Your task to perform on an android device: When is my next meeting? Image 0: 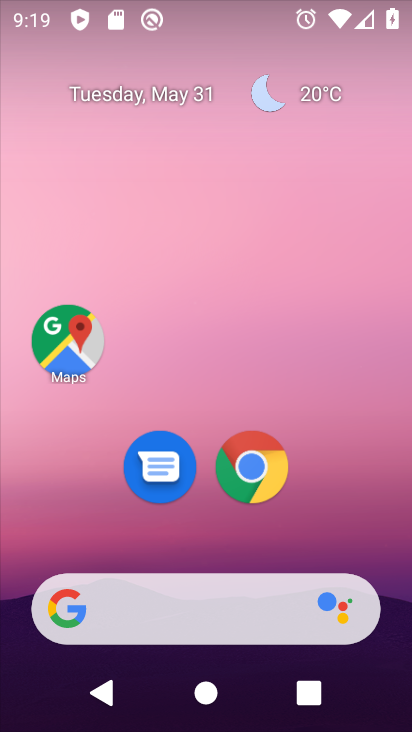
Step 0: drag from (225, 539) to (286, 16)
Your task to perform on an android device: When is my next meeting? Image 1: 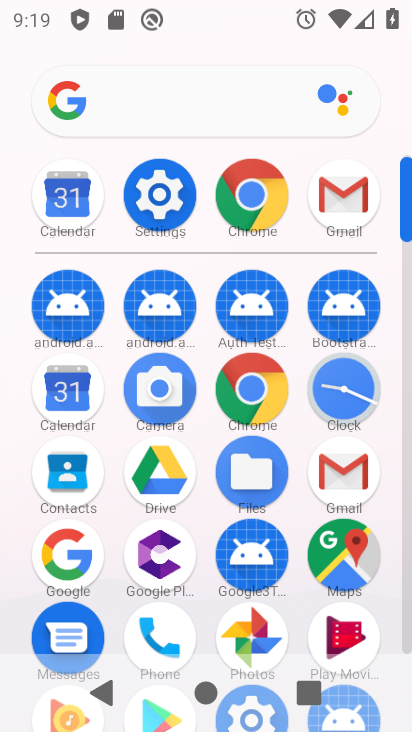
Step 1: drag from (201, 526) to (212, 248)
Your task to perform on an android device: When is my next meeting? Image 2: 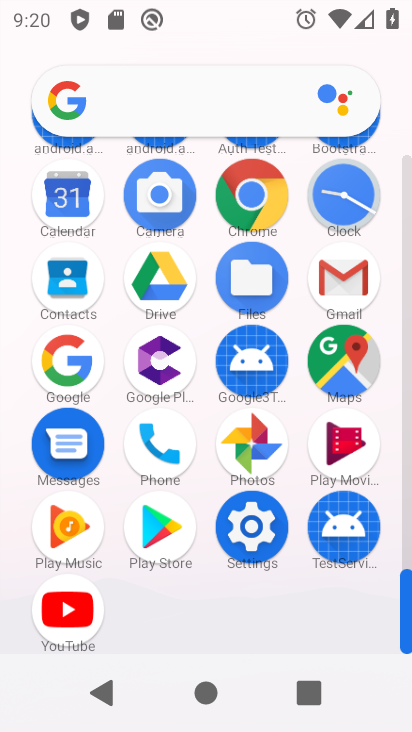
Step 2: click (63, 216)
Your task to perform on an android device: When is my next meeting? Image 3: 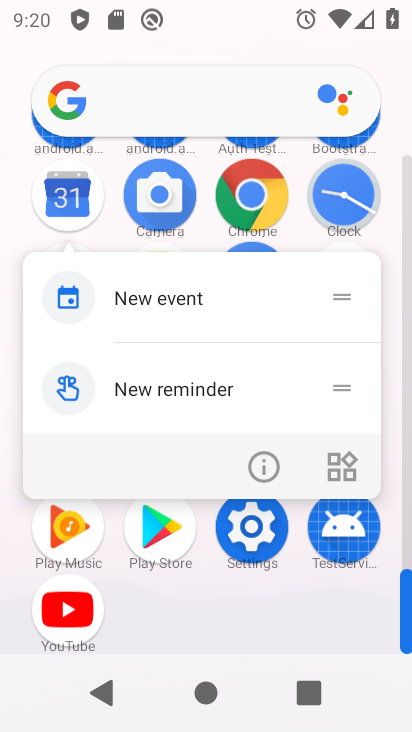
Step 3: click (260, 474)
Your task to perform on an android device: When is my next meeting? Image 4: 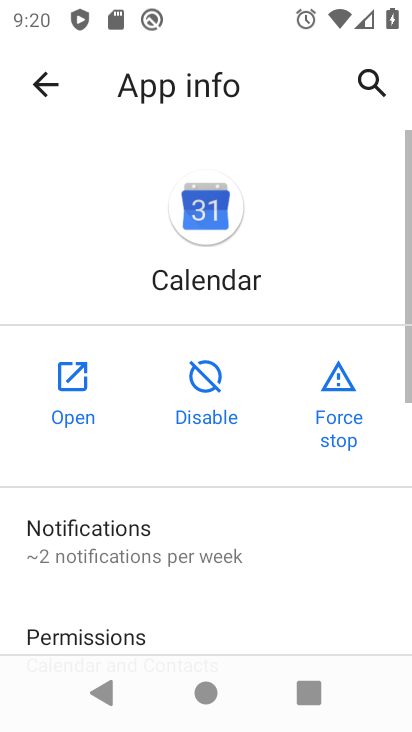
Step 4: click (75, 407)
Your task to perform on an android device: When is my next meeting? Image 5: 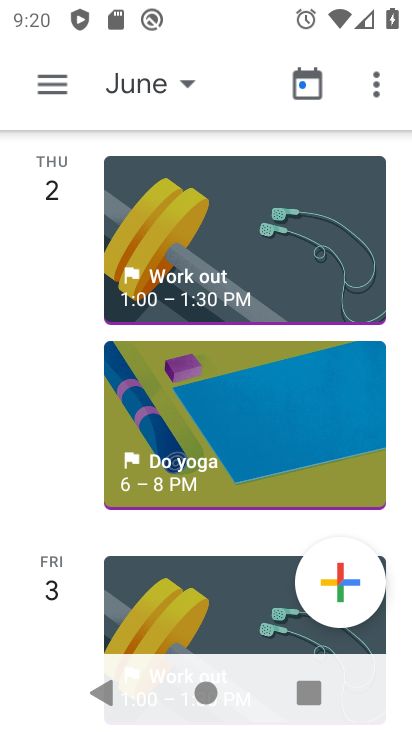
Step 5: click (160, 84)
Your task to perform on an android device: When is my next meeting? Image 6: 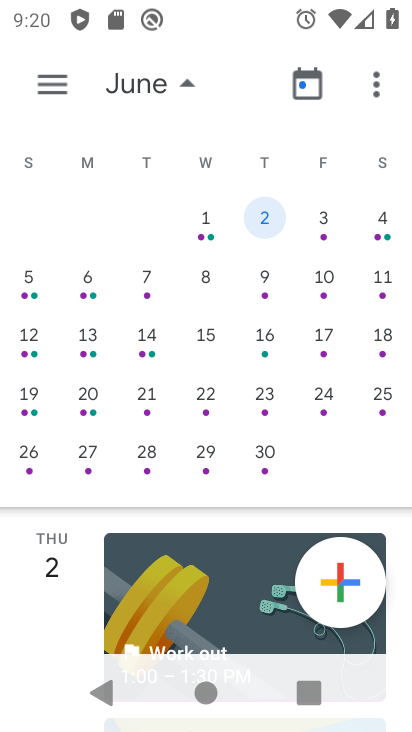
Step 6: click (220, 215)
Your task to perform on an android device: When is my next meeting? Image 7: 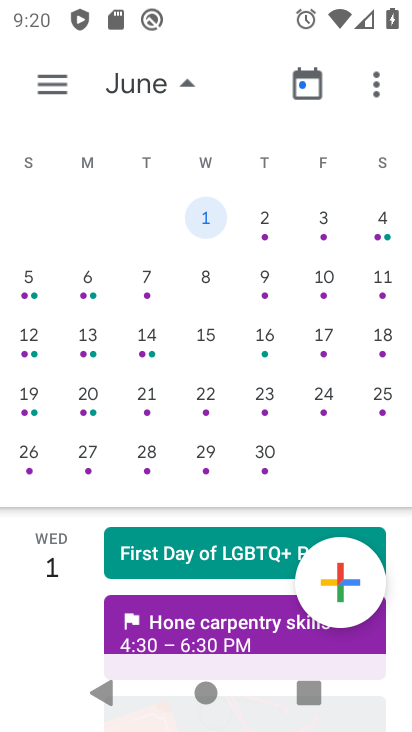
Step 7: task complete